Your task to perform on an android device: Go to internet settings Image 0: 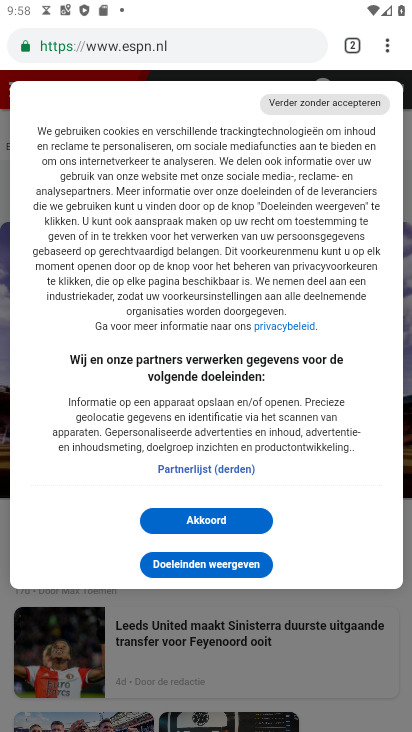
Step 0: press home button
Your task to perform on an android device: Go to internet settings Image 1: 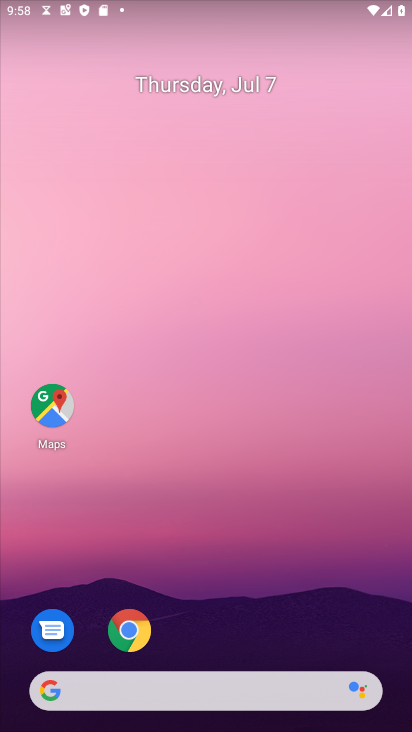
Step 1: drag from (222, 680) to (190, 281)
Your task to perform on an android device: Go to internet settings Image 2: 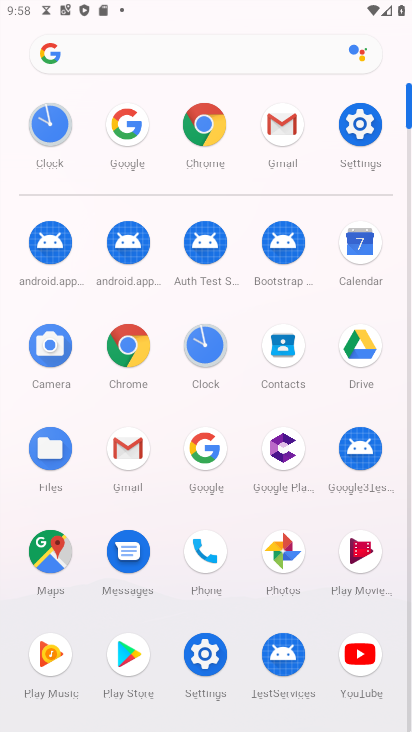
Step 2: click (356, 129)
Your task to perform on an android device: Go to internet settings Image 3: 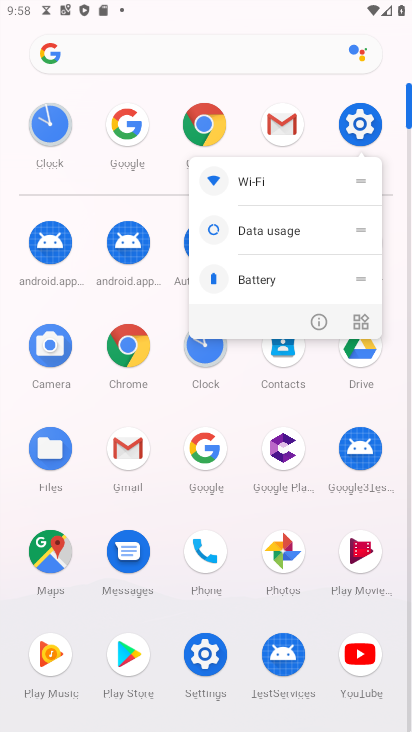
Step 3: click (366, 122)
Your task to perform on an android device: Go to internet settings Image 4: 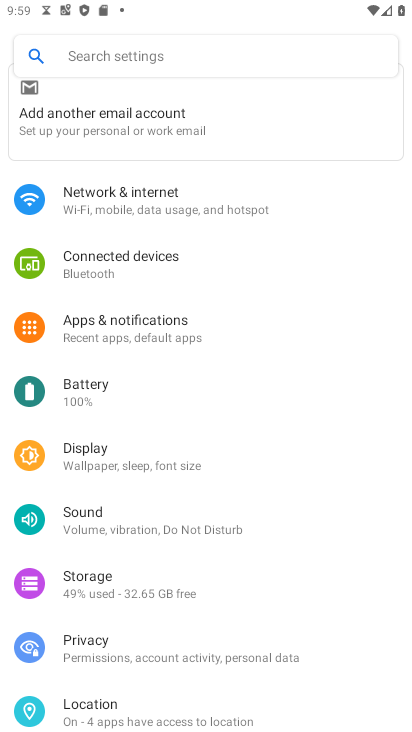
Step 4: click (140, 209)
Your task to perform on an android device: Go to internet settings Image 5: 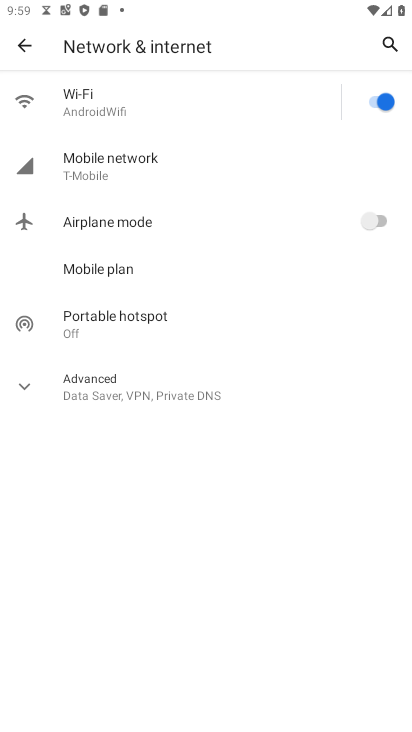
Step 5: click (164, 392)
Your task to perform on an android device: Go to internet settings Image 6: 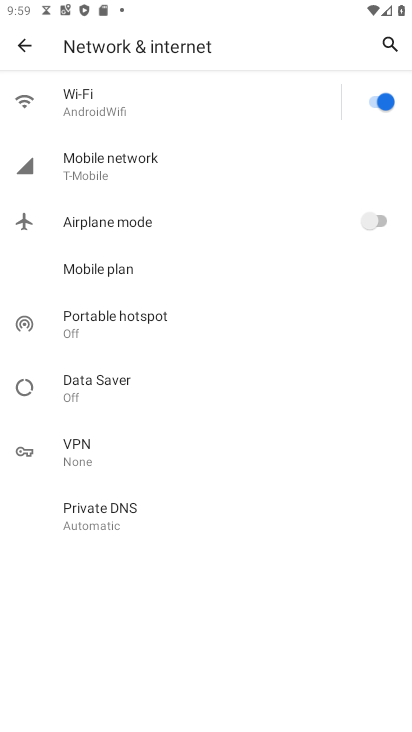
Step 6: task complete